Your task to perform on an android device: Open Amazon Image 0: 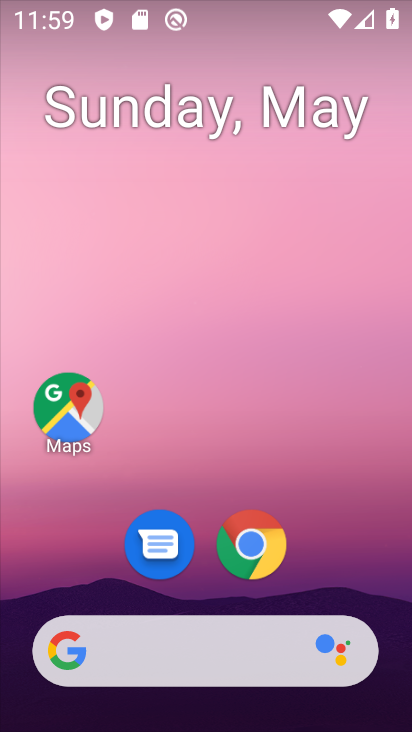
Step 0: drag from (301, 611) to (293, 12)
Your task to perform on an android device: Open Amazon Image 1: 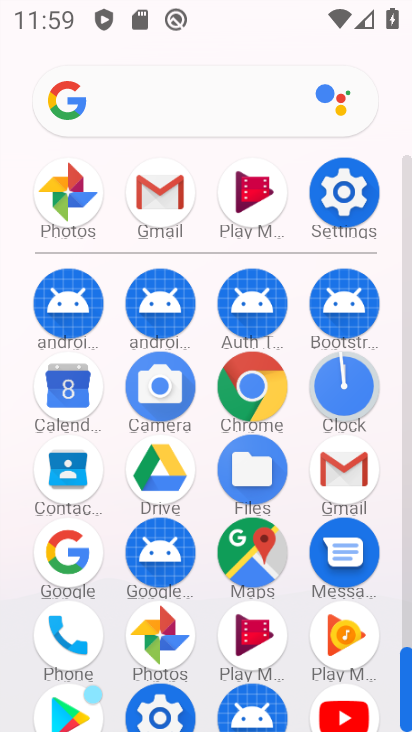
Step 1: press home button
Your task to perform on an android device: Open Amazon Image 2: 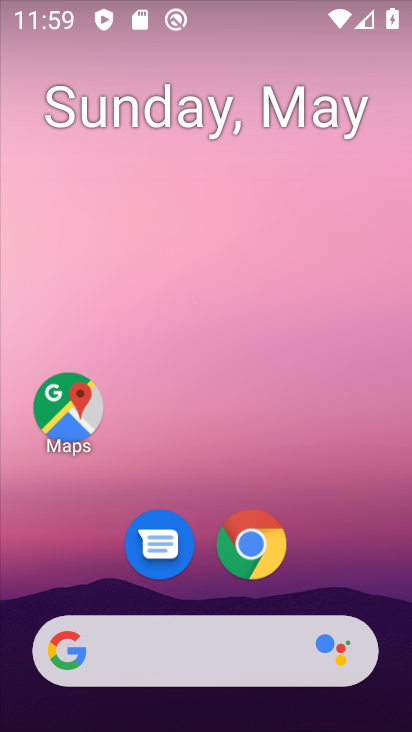
Step 2: drag from (341, 582) to (399, 17)
Your task to perform on an android device: Open Amazon Image 3: 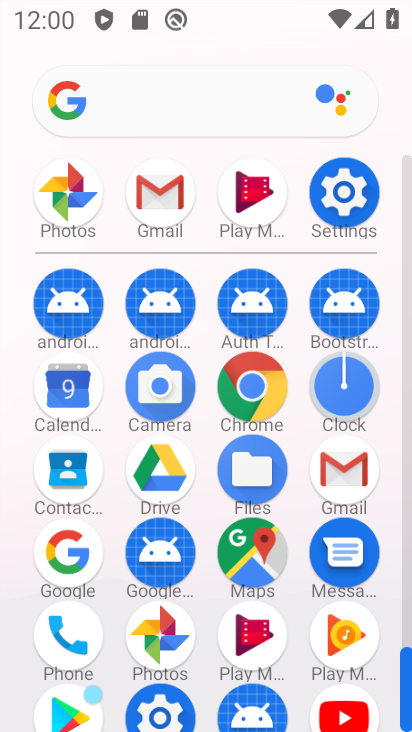
Step 3: click (249, 399)
Your task to perform on an android device: Open Amazon Image 4: 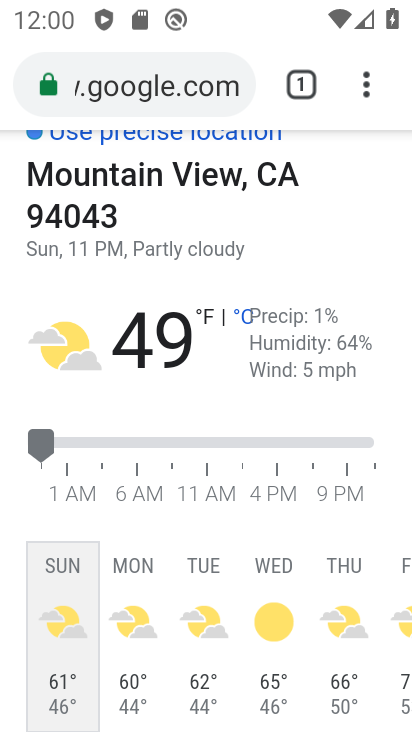
Step 4: drag from (371, 164) to (293, 728)
Your task to perform on an android device: Open Amazon Image 5: 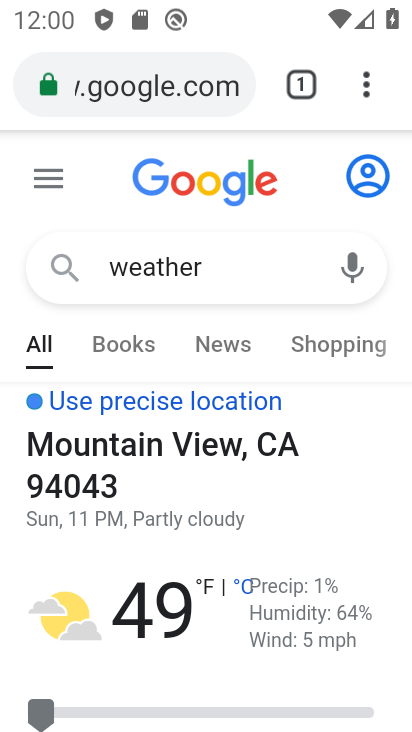
Step 5: press home button
Your task to perform on an android device: Open Amazon Image 6: 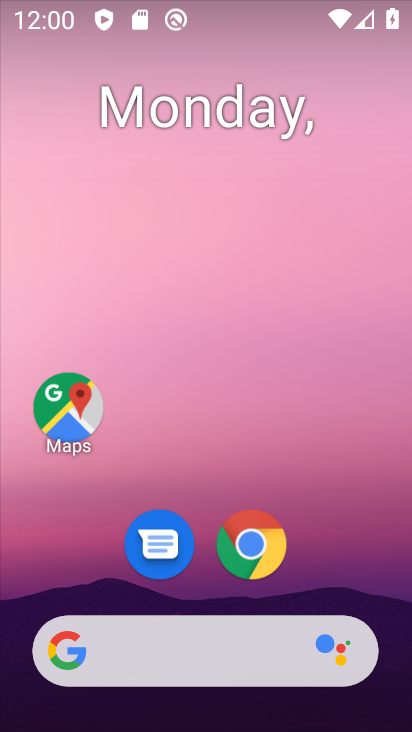
Step 6: drag from (335, 599) to (380, 51)
Your task to perform on an android device: Open Amazon Image 7: 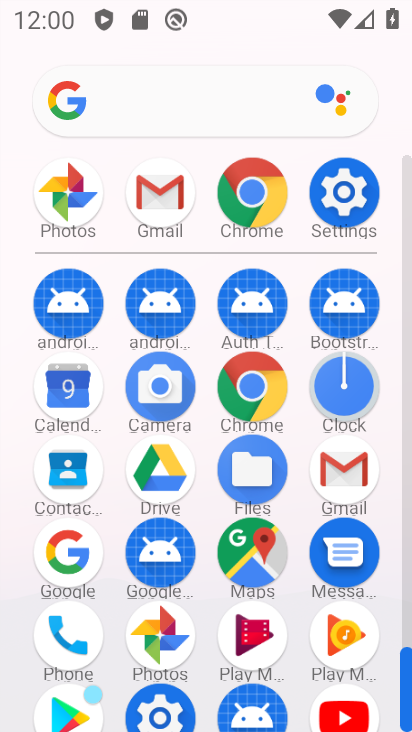
Step 7: click (260, 366)
Your task to perform on an android device: Open Amazon Image 8: 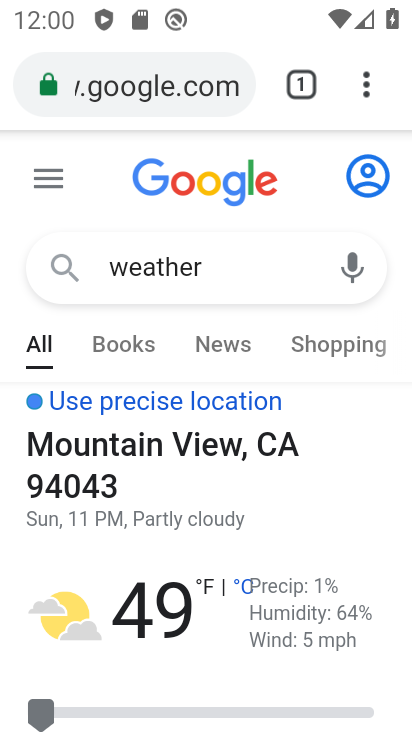
Step 8: click (174, 92)
Your task to perform on an android device: Open Amazon Image 9: 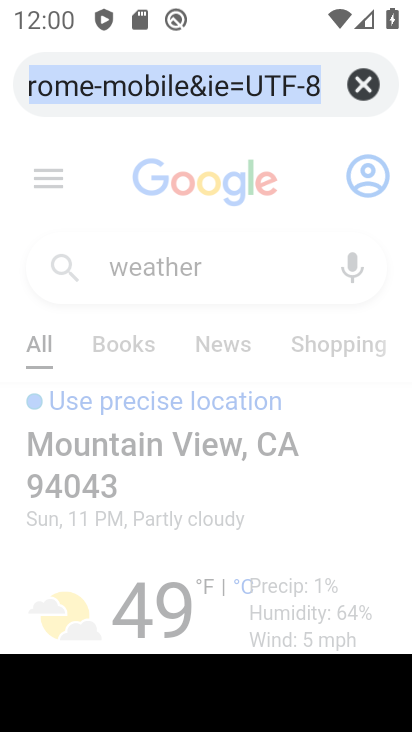
Step 9: click (361, 90)
Your task to perform on an android device: Open Amazon Image 10: 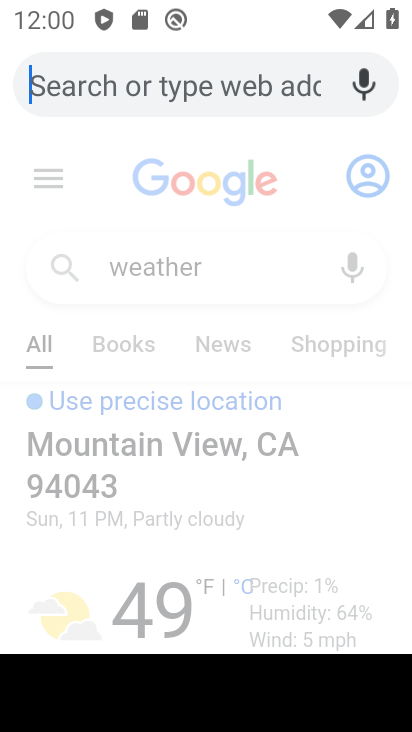
Step 10: type "amazon"
Your task to perform on an android device: Open Amazon Image 11: 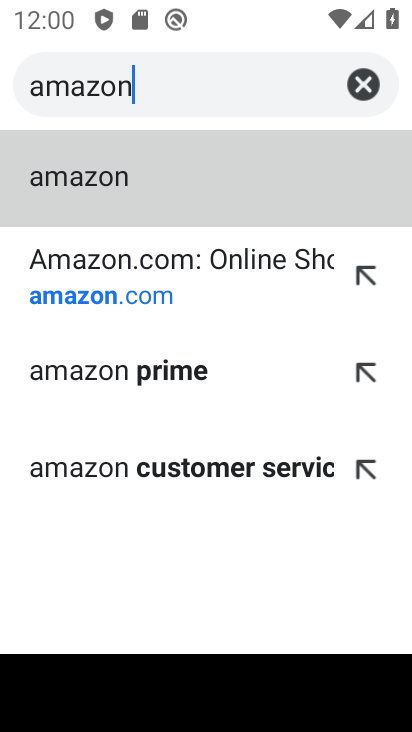
Step 11: click (174, 271)
Your task to perform on an android device: Open Amazon Image 12: 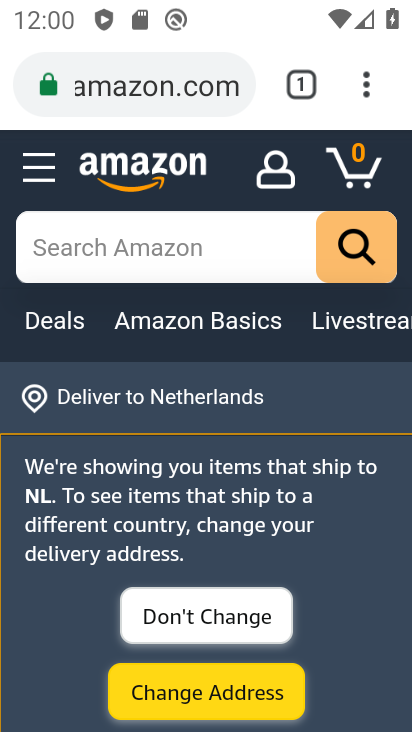
Step 12: task complete